Your task to perform on an android device: Play the last video I watched on Youtube Image 0: 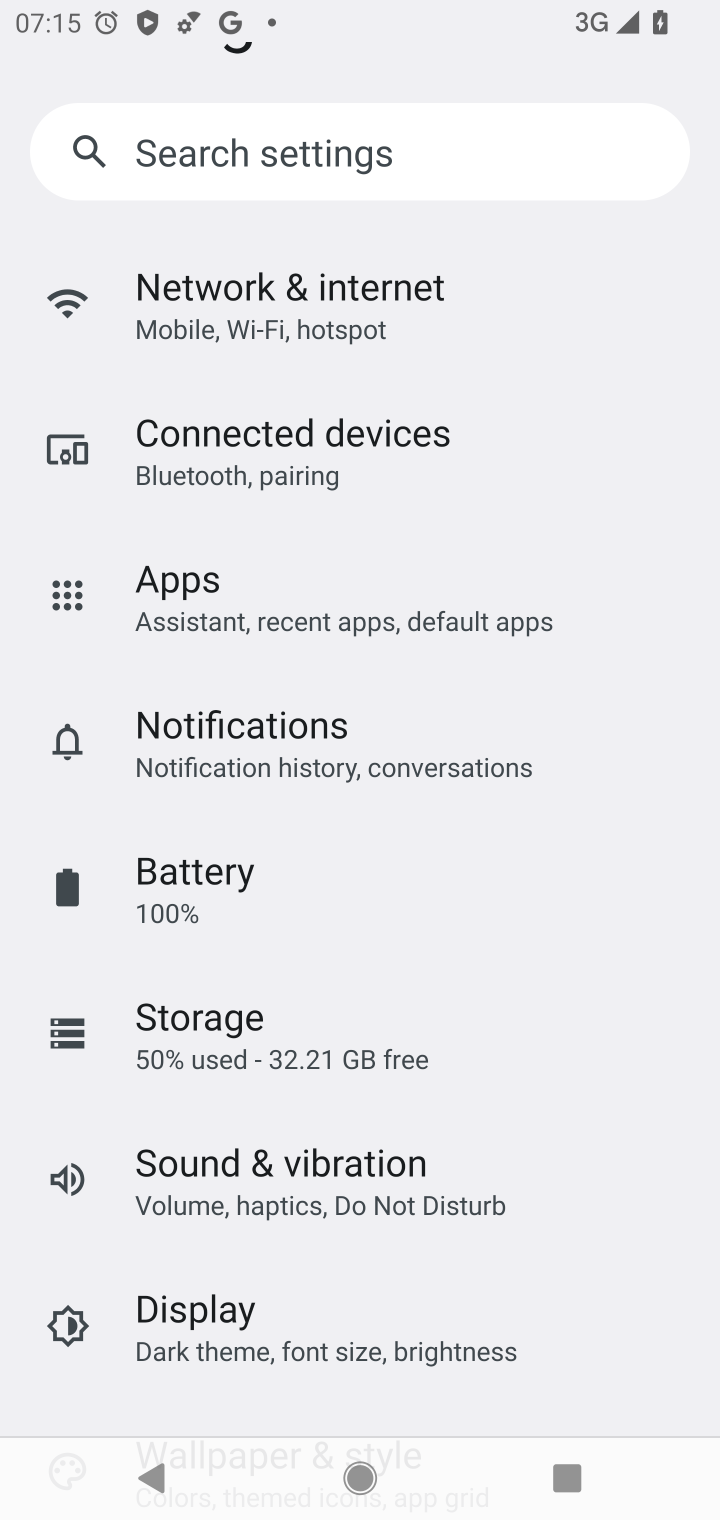
Step 0: press home button
Your task to perform on an android device: Play the last video I watched on Youtube Image 1: 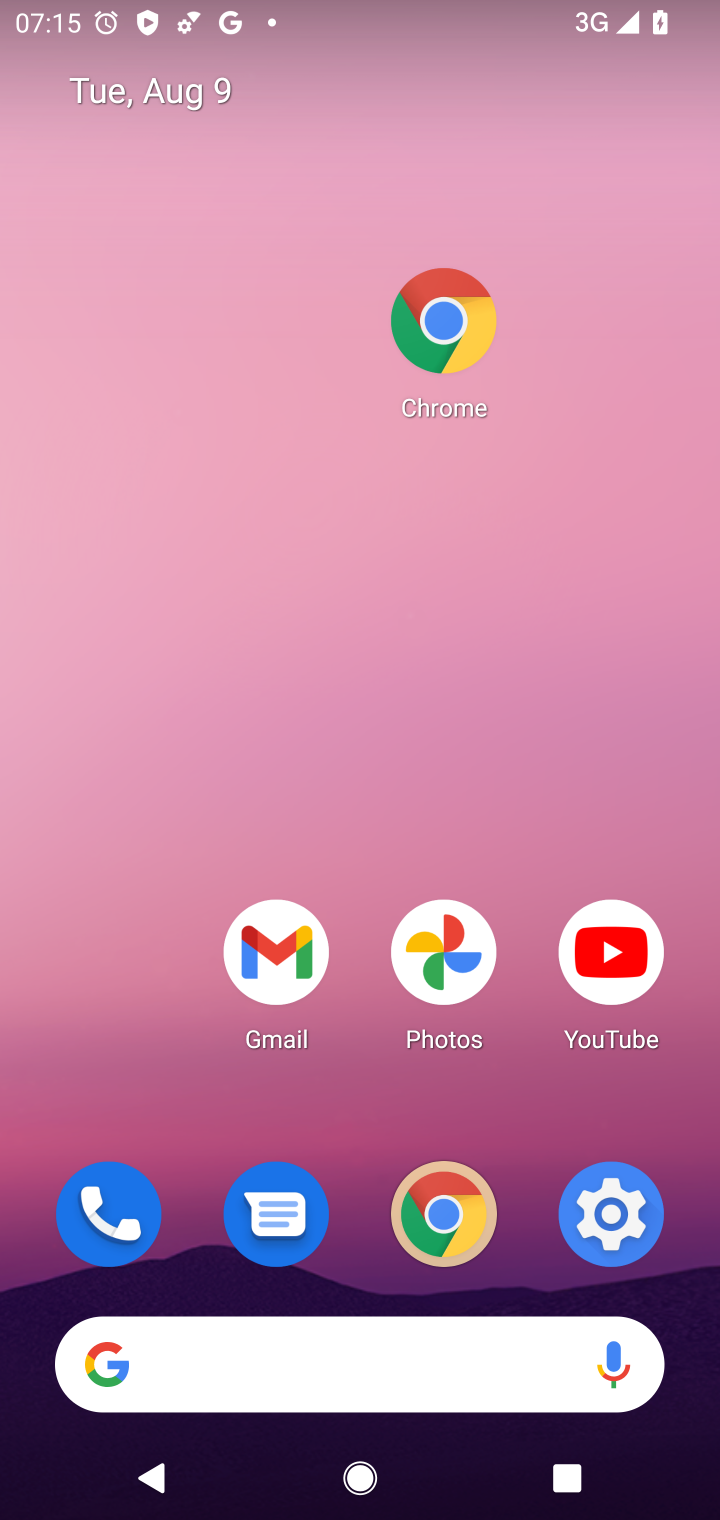
Step 1: drag from (519, 1376) to (485, 458)
Your task to perform on an android device: Play the last video I watched on Youtube Image 2: 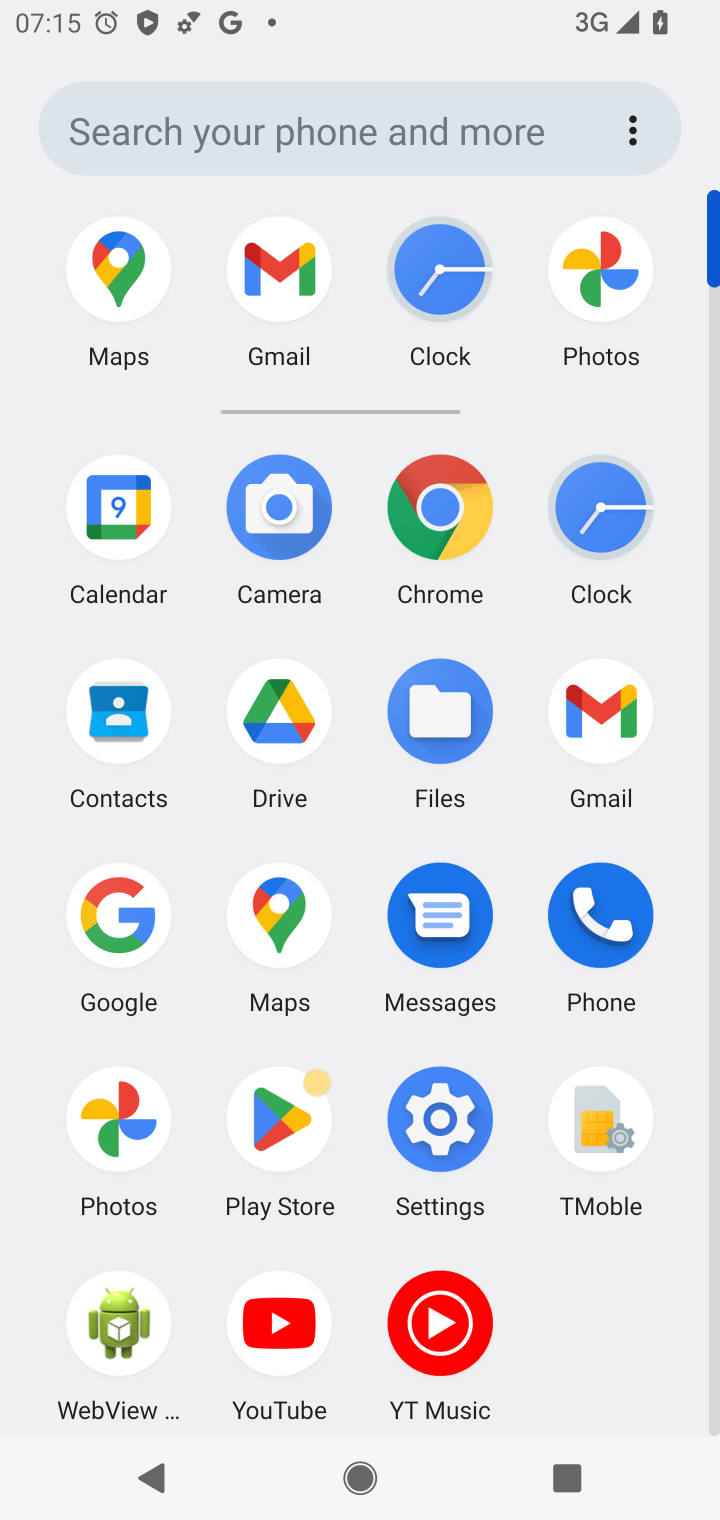
Step 2: click (277, 1315)
Your task to perform on an android device: Play the last video I watched on Youtube Image 3: 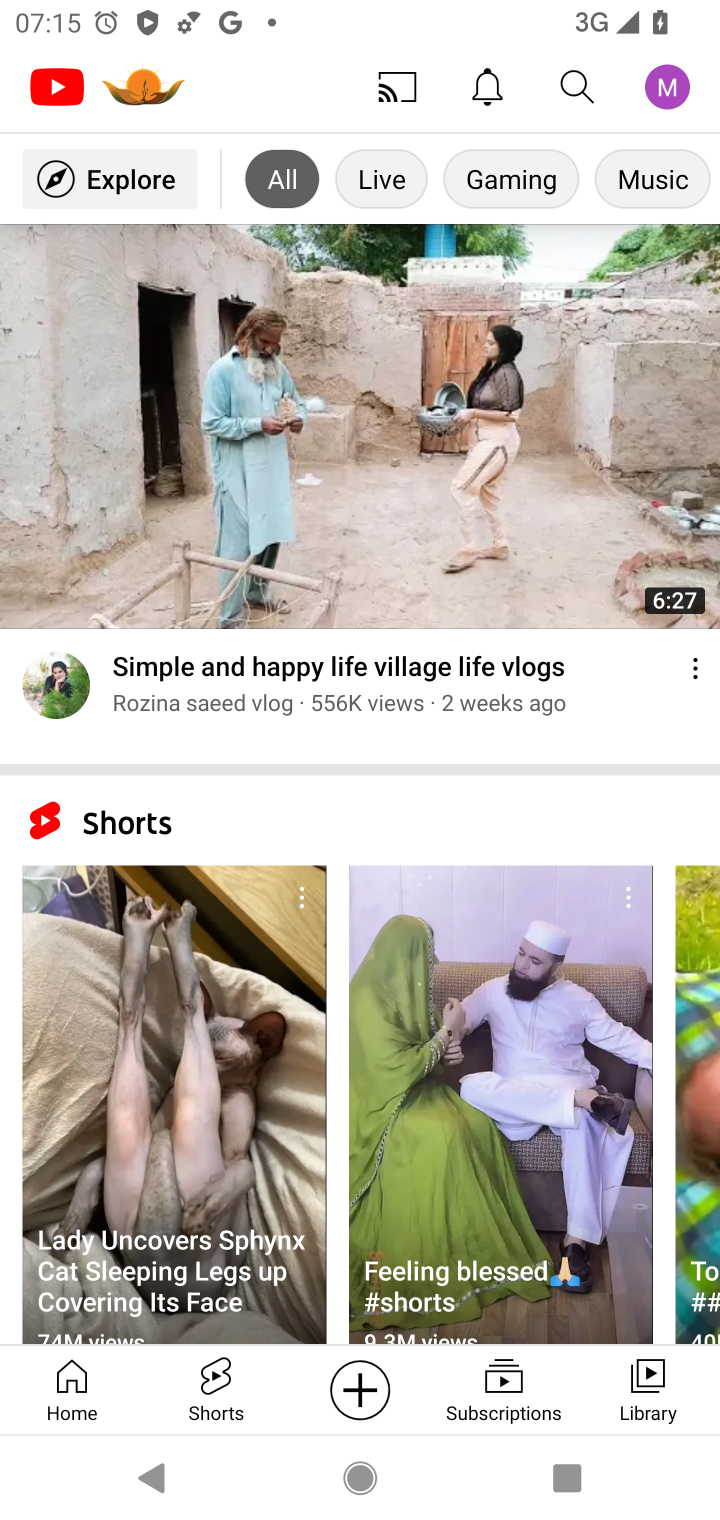
Step 3: click (640, 1394)
Your task to perform on an android device: Play the last video I watched on Youtube Image 4: 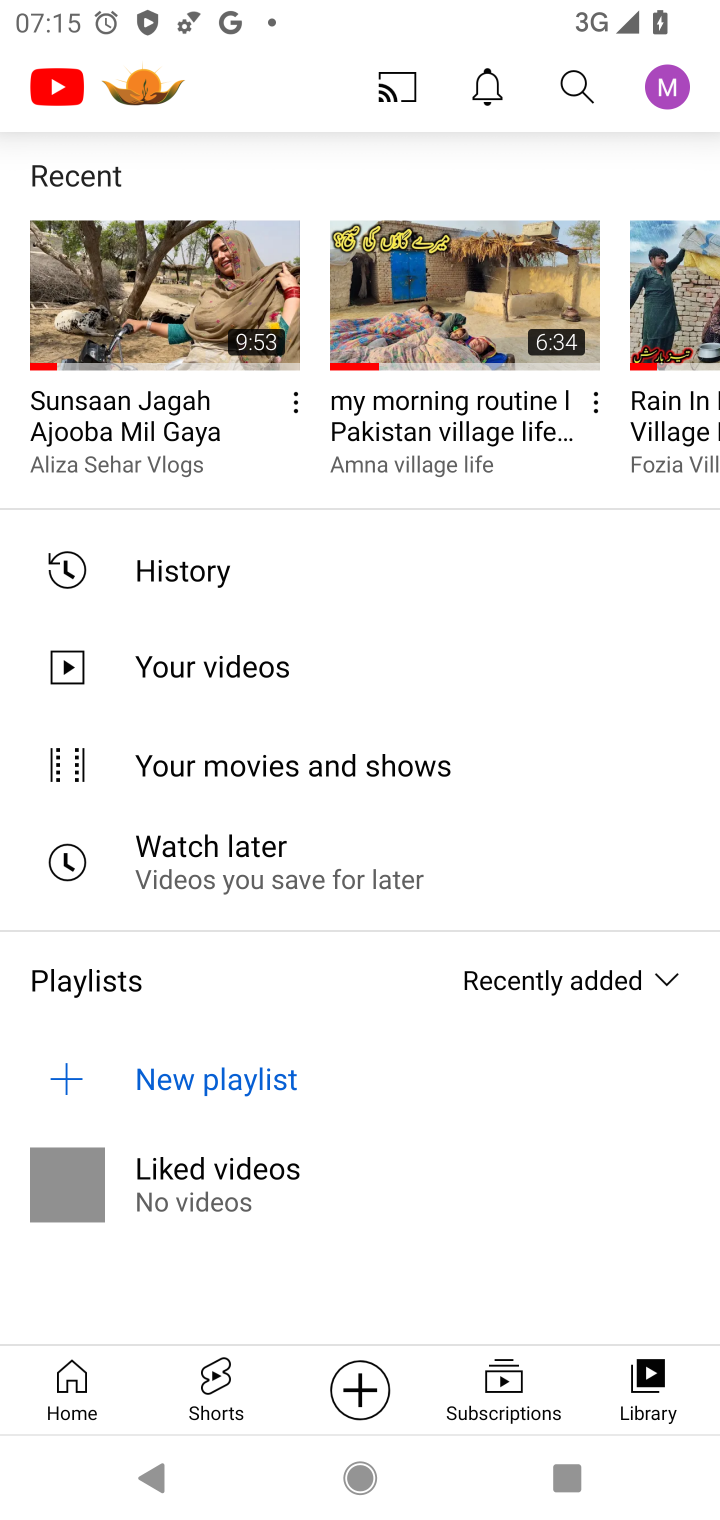
Step 4: click (73, 331)
Your task to perform on an android device: Play the last video I watched on Youtube Image 5: 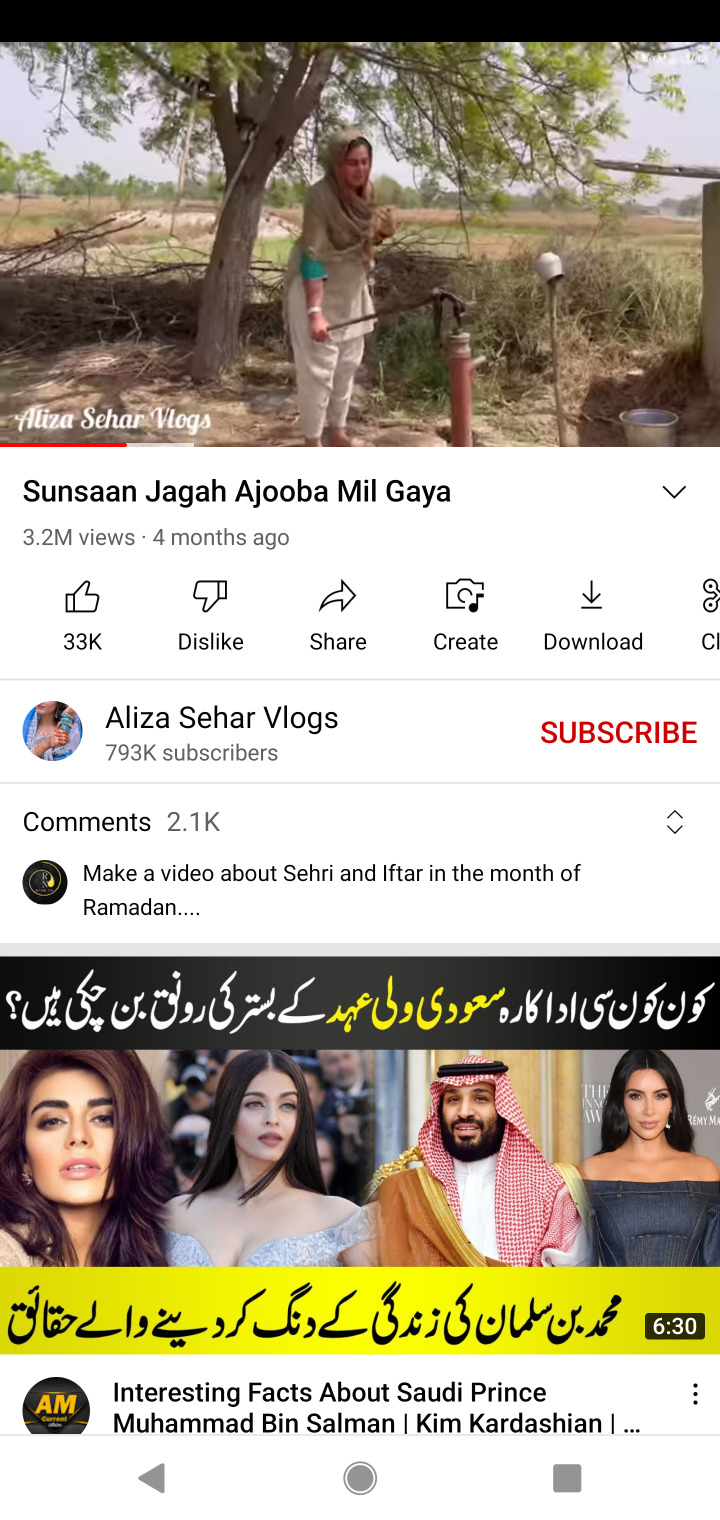
Step 5: task complete